Your task to perform on an android device: manage bookmarks in the chrome app Image 0: 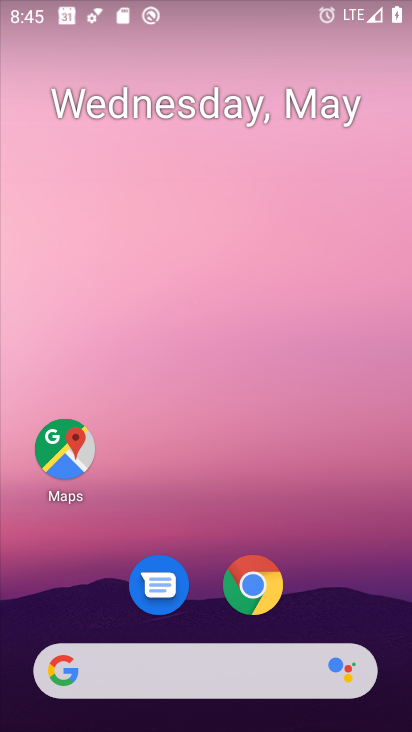
Step 0: click (265, 572)
Your task to perform on an android device: manage bookmarks in the chrome app Image 1: 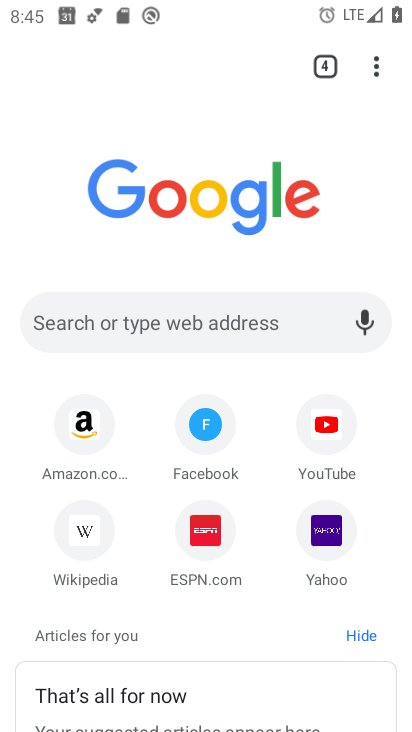
Step 1: click (371, 62)
Your task to perform on an android device: manage bookmarks in the chrome app Image 2: 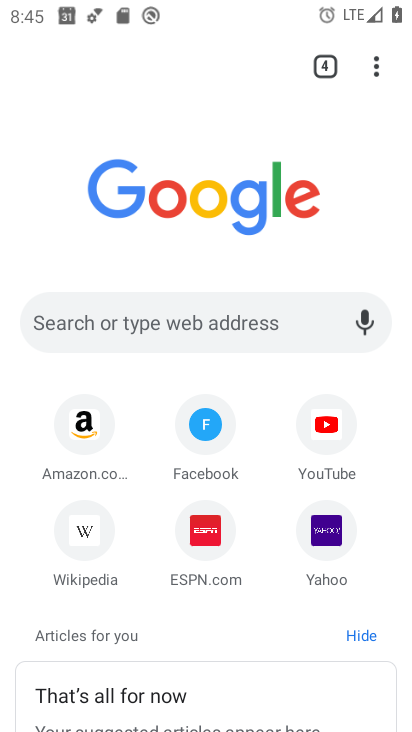
Step 2: click (371, 65)
Your task to perform on an android device: manage bookmarks in the chrome app Image 3: 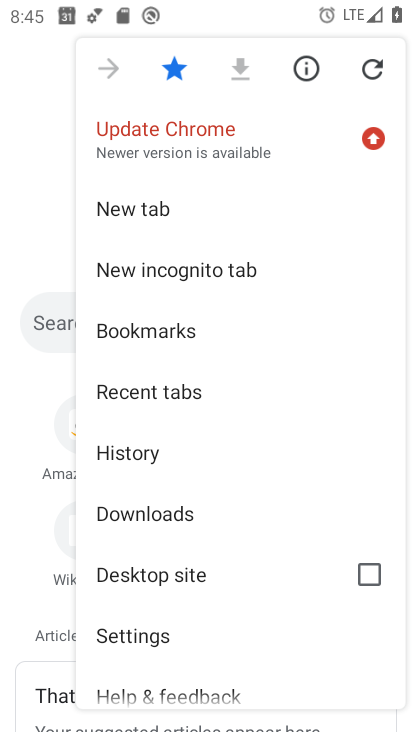
Step 3: click (199, 633)
Your task to perform on an android device: manage bookmarks in the chrome app Image 4: 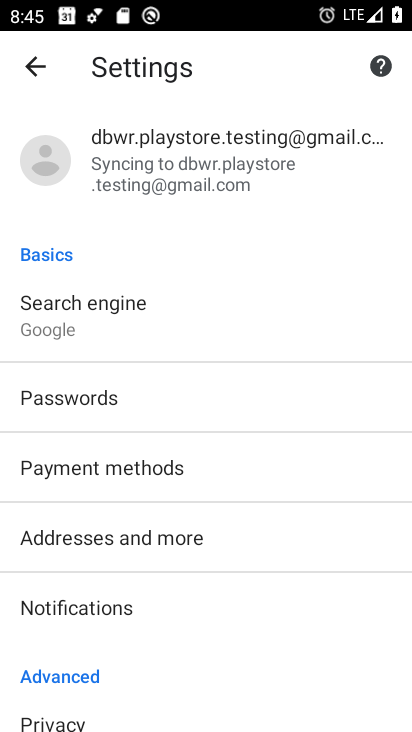
Step 4: drag from (231, 629) to (204, 176)
Your task to perform on an android device: manage bookmarks in the chrome app Image 5: 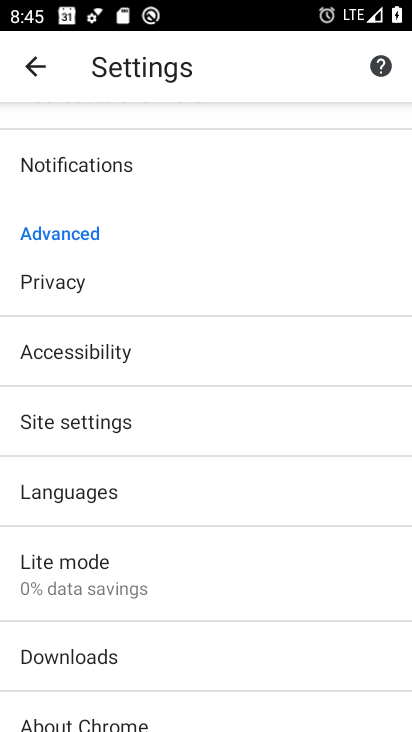
Step 5: drag from (204, 178) to (244, 99)
Your task to perform on an android device: manage bookmarks in the chrome app Image 6: 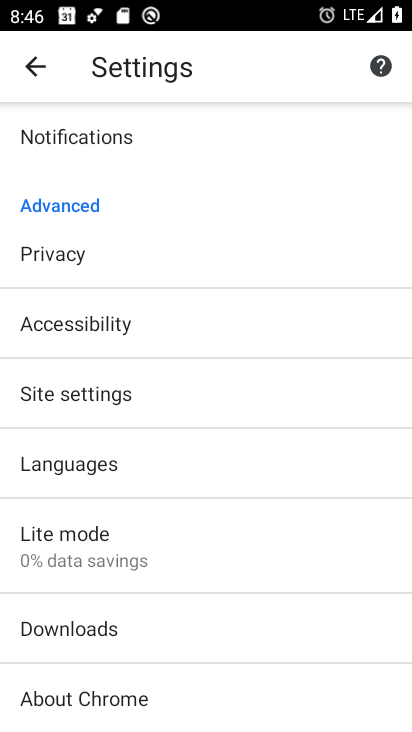
Step 6: drag from (242, 183) to (260, 641)
Your task to perform on an android device: manage bookmarks in the chrome app Image 7: 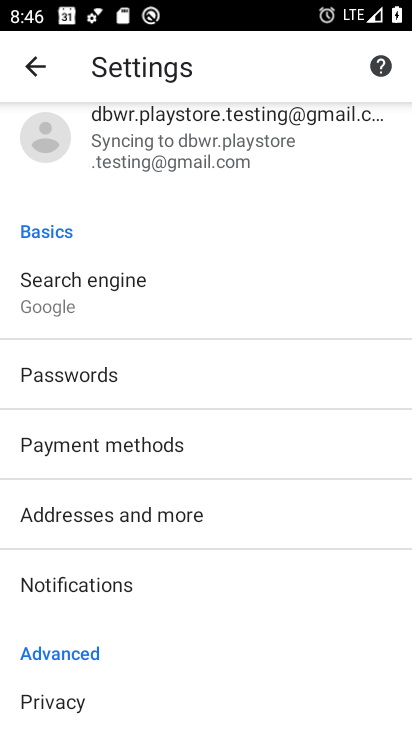
Step 7: click (31, 55)
Your task to perform on an android device: manage bookmarks in the chrome app Image 8: 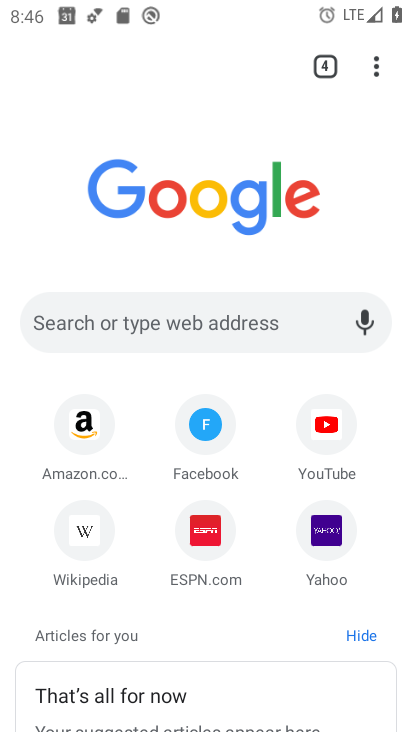
Step 8: drag from (375, 65) to (198, 331)
Your task to perform on an android device: manage bookmarks in the chrome app Image 9: 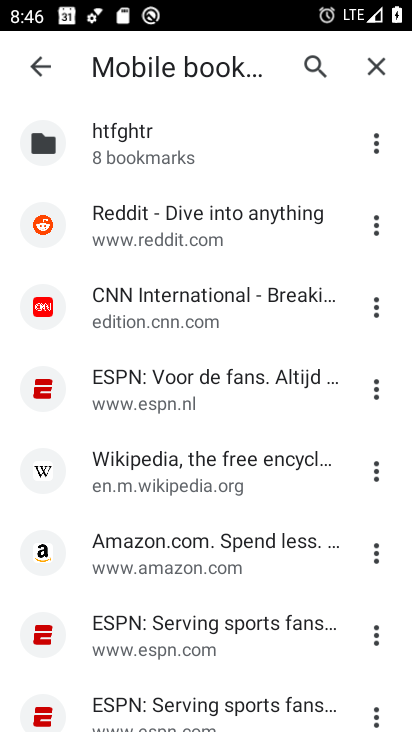
Step 9: click (376, 301)
Your task to perform on an android device: manage bookmarks in the chrome app Image 10: 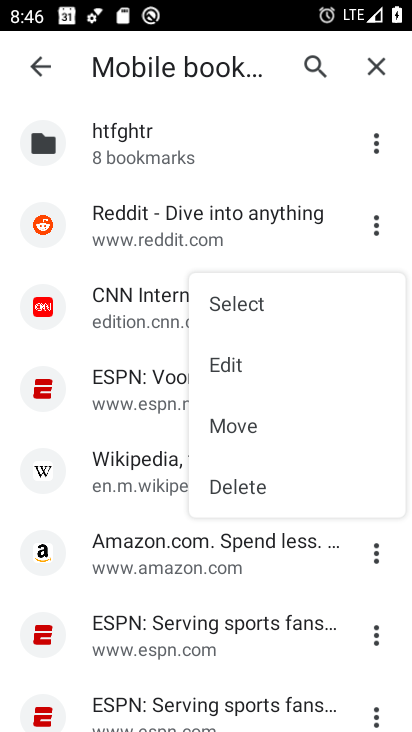
Step 10: click (291, 366)
Your task to perform on an android device: manage bookmarks in the chrome app Image 11: 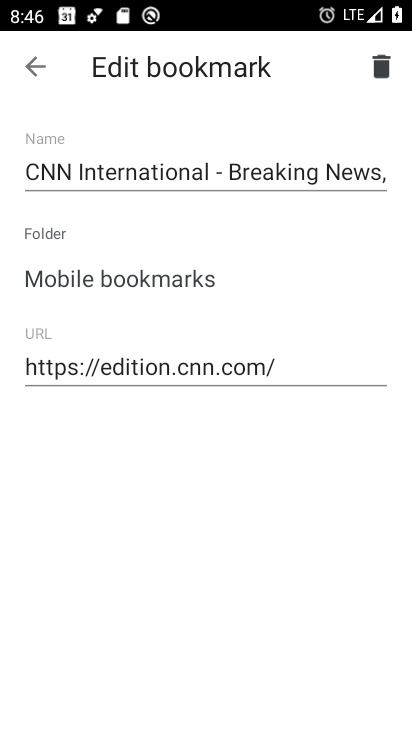
Step 11: click (39, 58)
Your task to perform on an android device: manage bookmarks in the chrome app Image 12: 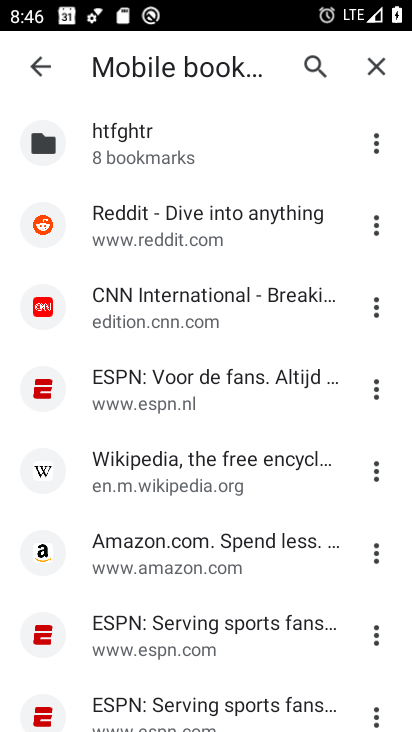
Step 12: task complete